Your task to perform on an android device: see sites visited before in the chrome app Image 0: 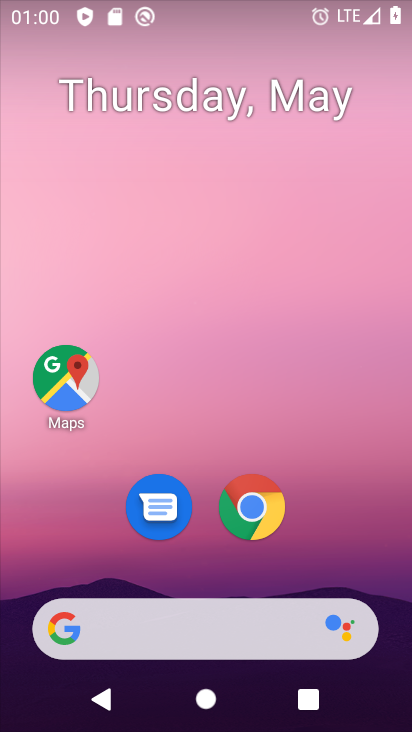
Step 0: click (245, 506)
Your task to perform on an android device: see sites visited before in the chrome app Image 1: 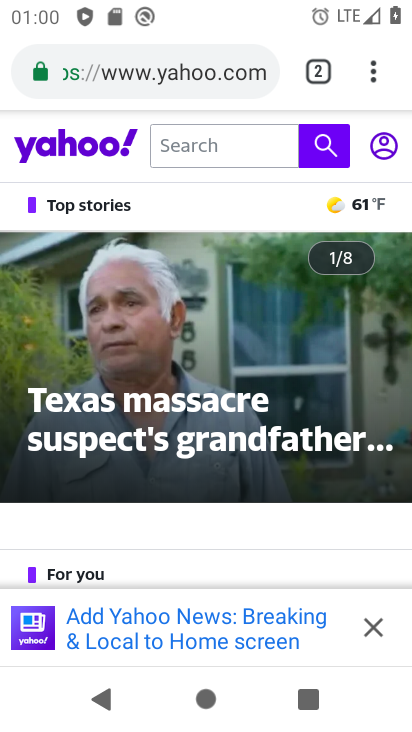
Step 1: drag from (370, 73) to (164, 486)
Your task to perform on an android device: see sites visited before in the chrome app Image 2: 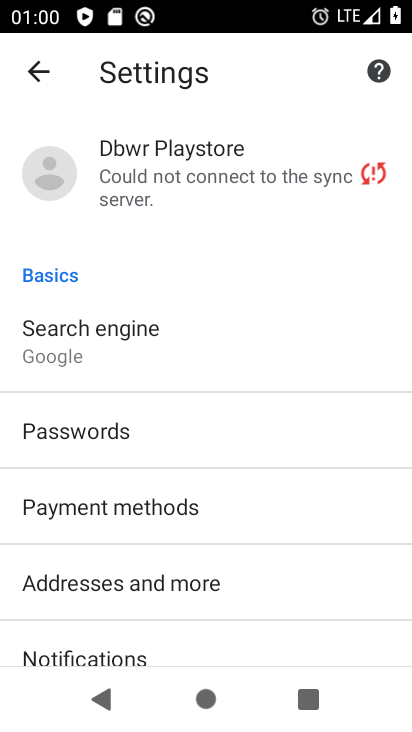
Step 2: drag from (180, 607) to (221, 342)
Your task to perform on an android device: see sites visited before in the chrome app Image 3: 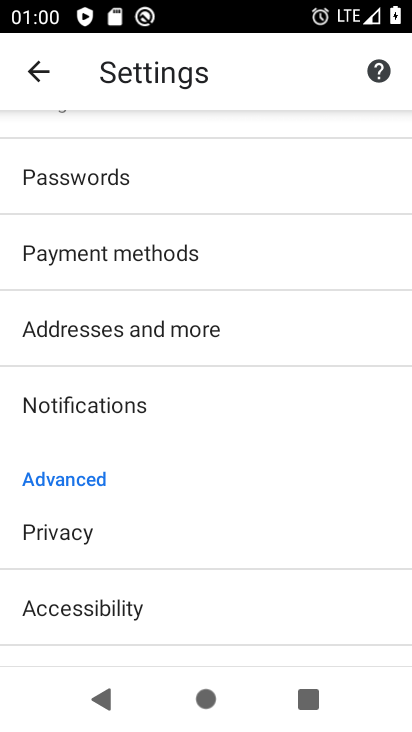
Step 3: drag from (222, 574) to (232, 401)
Your task to perform on an android device: see sites visited before in the chrome app Image 4: 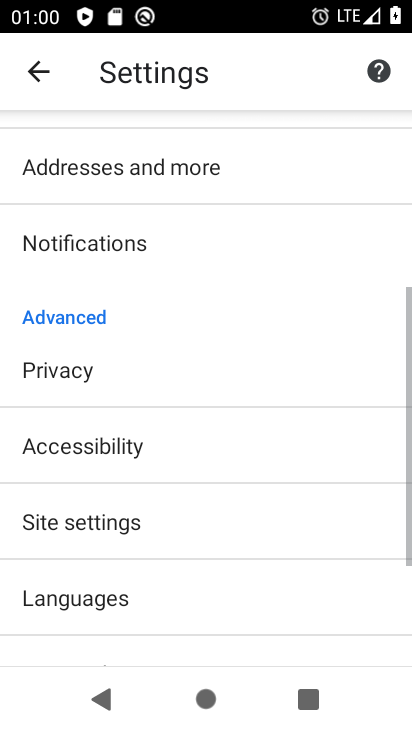
Step 4: drag from (221, 572) to (221, 484)
Your task to perform on an android device: see sites visited before in the chrome app Image 5: 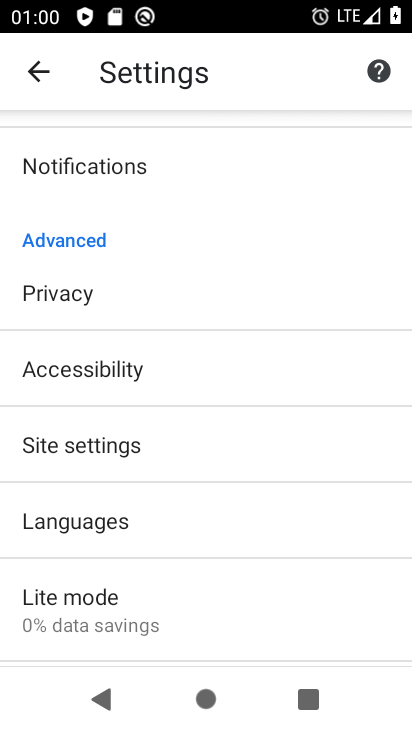
Step 5: drag from (184, 255) to (186, 511)
Your task to perform on an android device: see sites visited before in the chrome app Image 6: 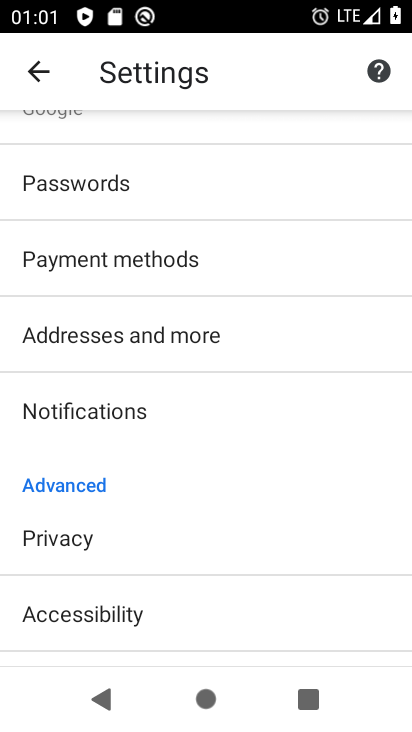
Step 6: drag from (210, 291) to (210, 551)
Your task to perform on an android device: see sites visited before in the chrome app Image 7: 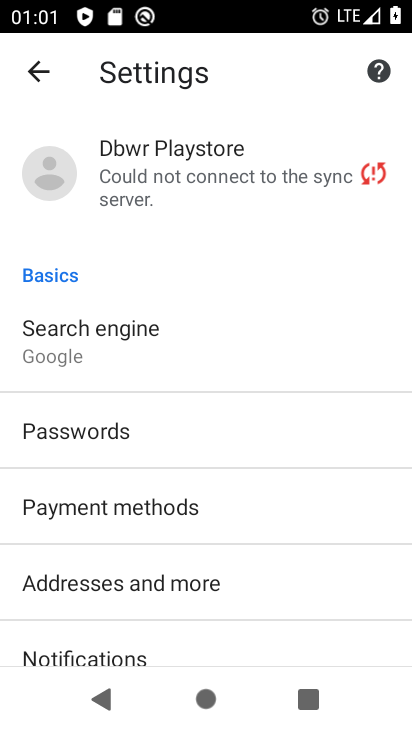
Step 7: click (51, 66)
Your task to perform on an android device: see sites visited before in the chrome app Image 8: 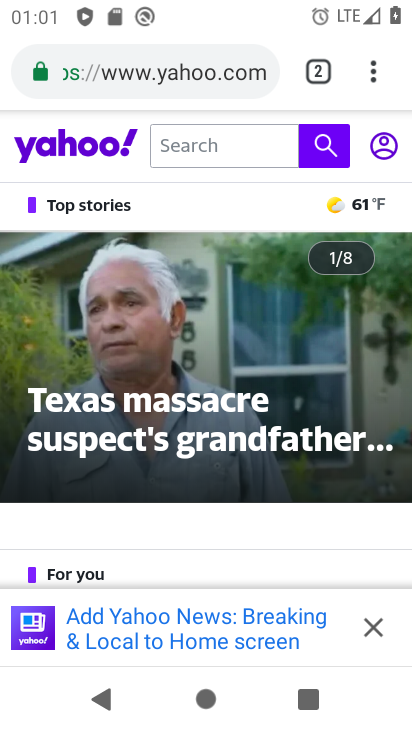
Step 8: click (372, 76)
Your task to perform on an android device: see sites visited before in the chrome app Image 9: 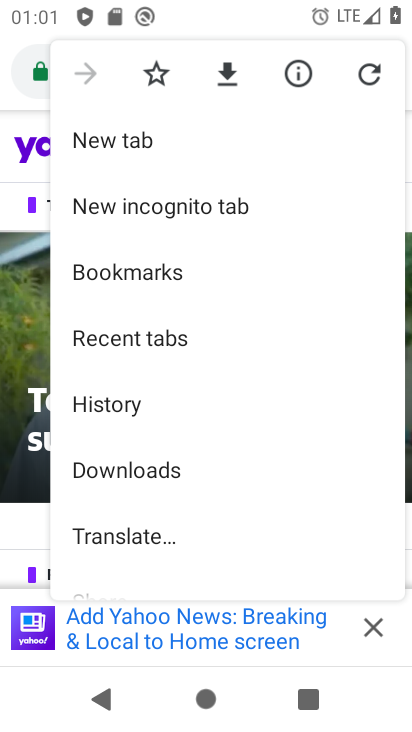
Step 9: click (139, 323)
Your task to perform on an android device: see sites visited before in the chrome app Image 10: 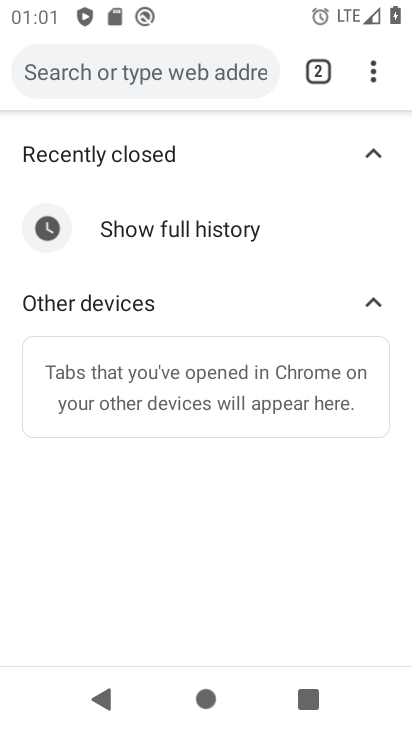
Step 10: task complete